Your task to perform on an android device: Open the web browser Image 0: 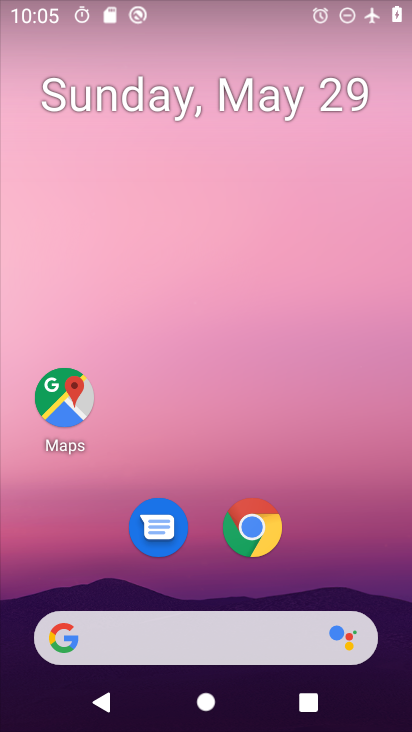
Step 0: click (276, 538)
Your task to perform on an android device: Open the web browser Image 1: 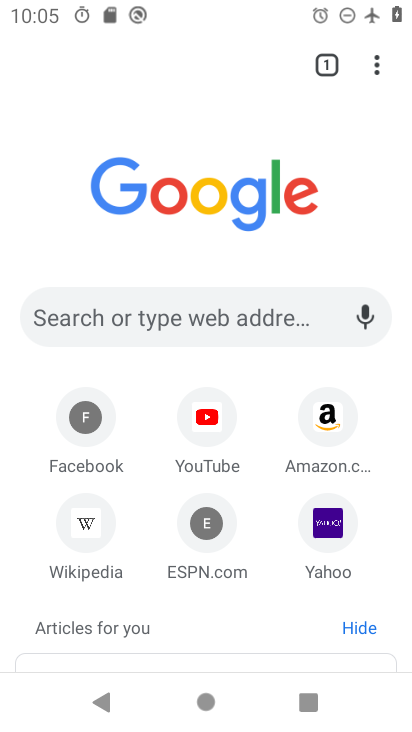
Step 1: task complete